Your task to perform on an android device: Go to battery settings Image 0: 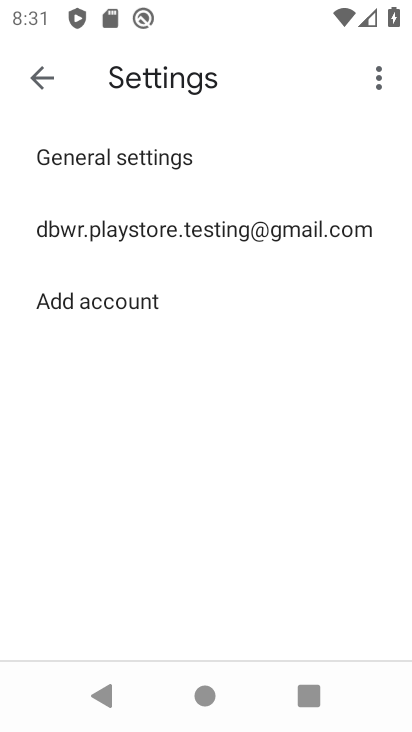
Step 0: press home button
Your task to perform on an android device: Go to battery settings Image 1: 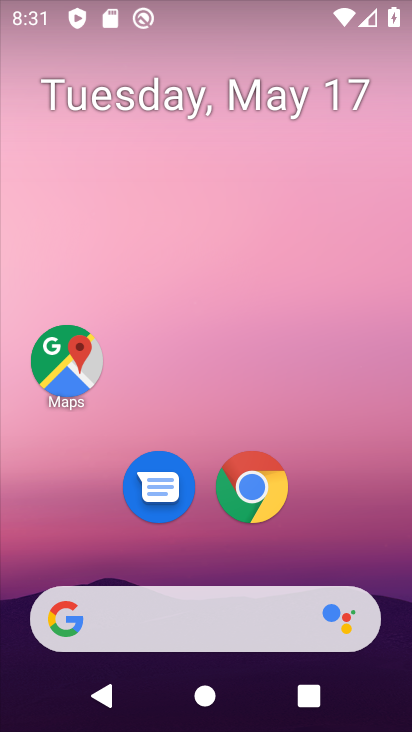
Step 1: drag from (236, 663) to (306, 165)
Your task to perform on an android device: Go to battery settings Image 2: 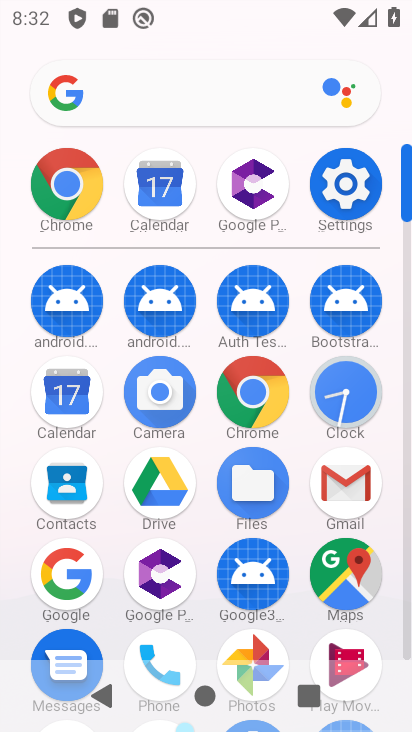
Step 2: click (354, 168)
Your task to perform on an android device: Go to battery settings Image 3: 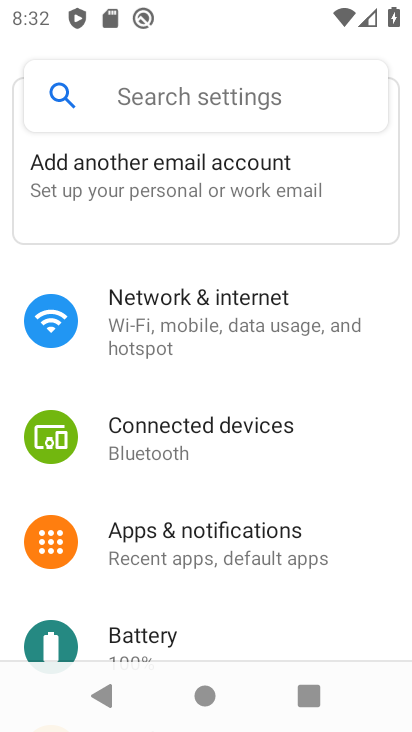
Step 3: click (190, 624)
Your task to perform on an android device: Go to battery settings Image 4: 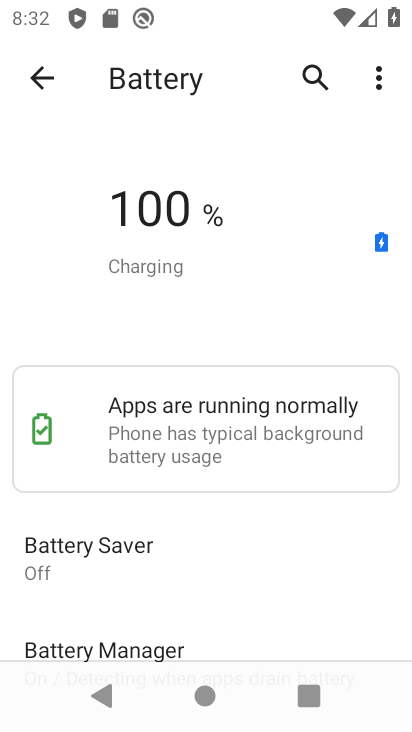
Step 4: task complete